Your task to perform on an android device: Open Google Chrome and click the shortcut for Amazon.com Image 0: 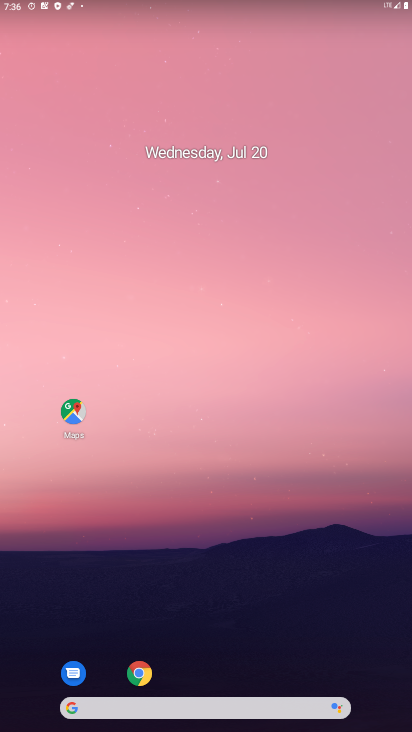
Step 0: drag from (361, 647) to (192, 129)
Your task to perform on an android device: Open Google Chrome and click the shortcut for Amazon.com Image 1: 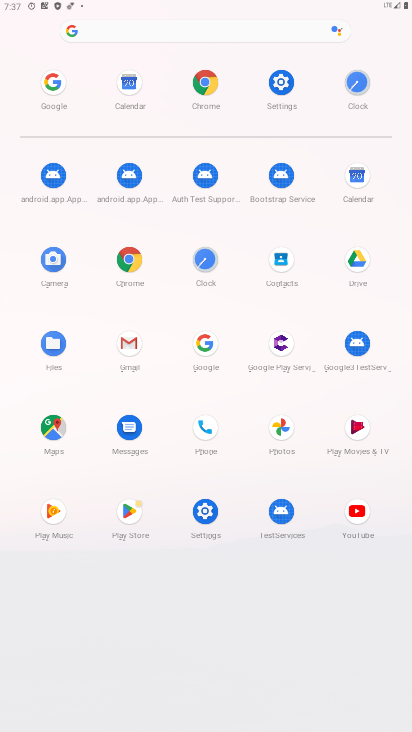
Step 1: click (118, 273)
Your task to perform on an android device: Open Google Chrome and click the shortcut for Amazon.com Image 2: 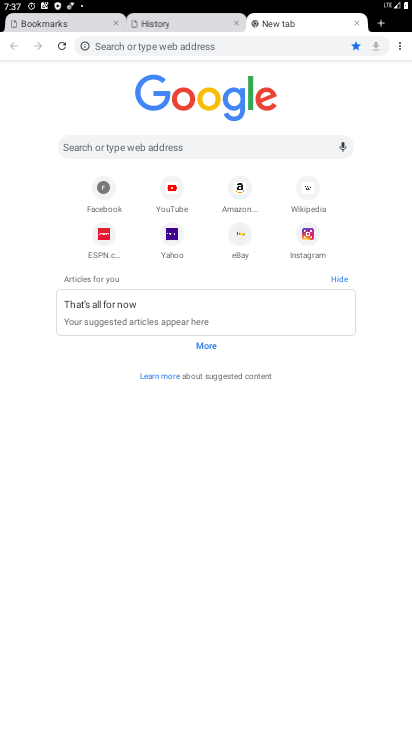
Step 2: click (240, 188)
Your task to perform on an android device: Open Google Chrome and click the shortcut for Amazon.com Image 3: 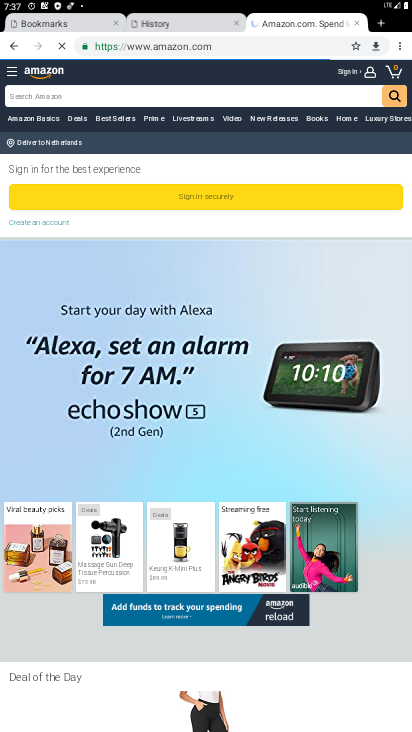
Step 3: task complete